Your task to perform on an android device: Show me popular games on the Play Store Image 0: 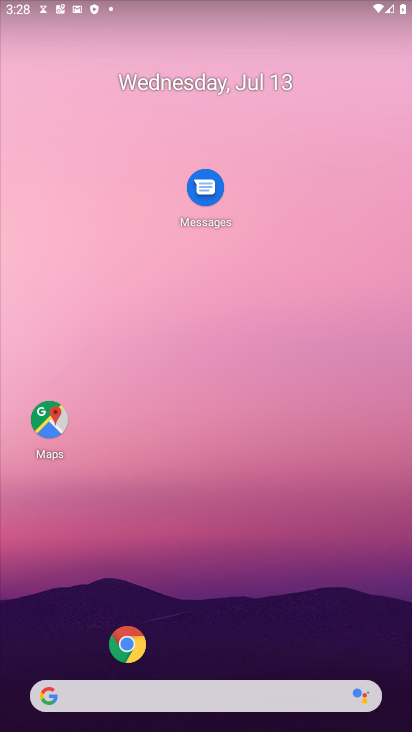
Step 0: drag from (22, 697) to (113, 336)
Your task to perform on an android device: Show me popular games on the Play Store Image 1: 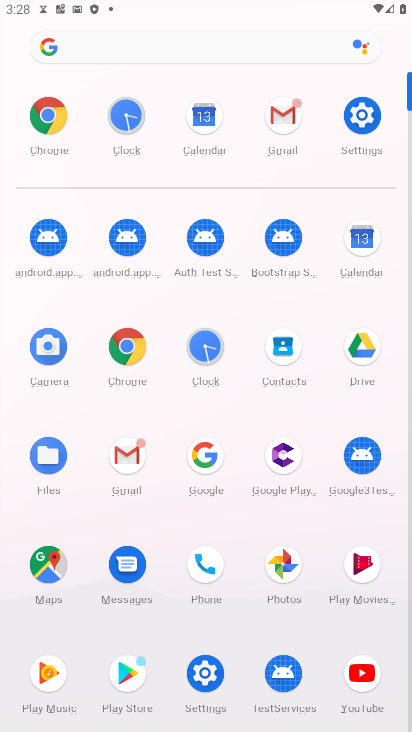
Step 1: click (130, 666)
Your task to perform on an android device: Show me popular games on the Play Store Image 2: 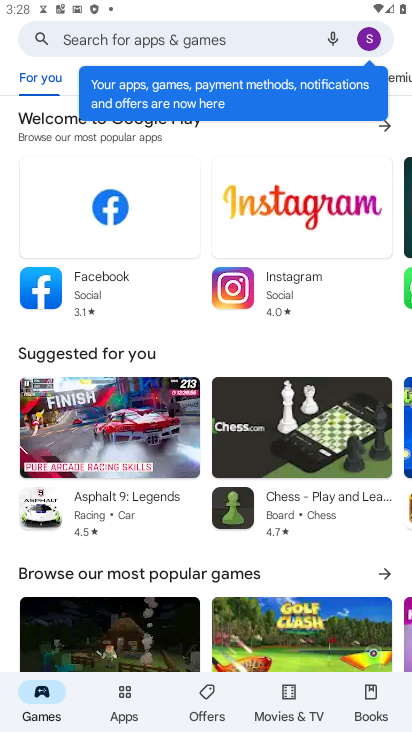
Step 2: click (82, 43)
Your task to perform on an android device: Show me popular games on the Play Store Image 3: 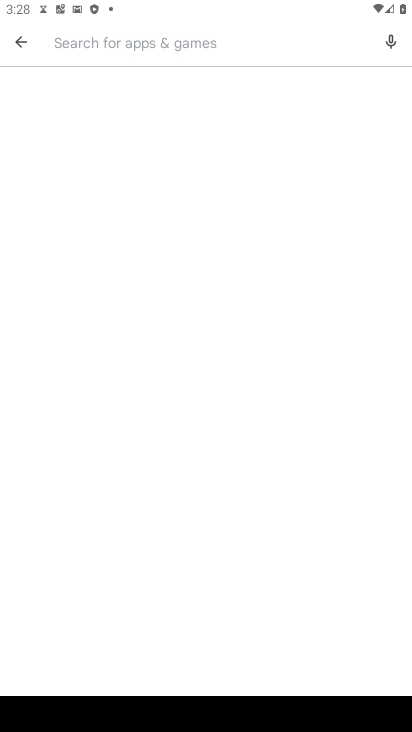
Step 3: type " popular games"
Your task to perform on an android device: Show me popular games on the Play Store Image 4: 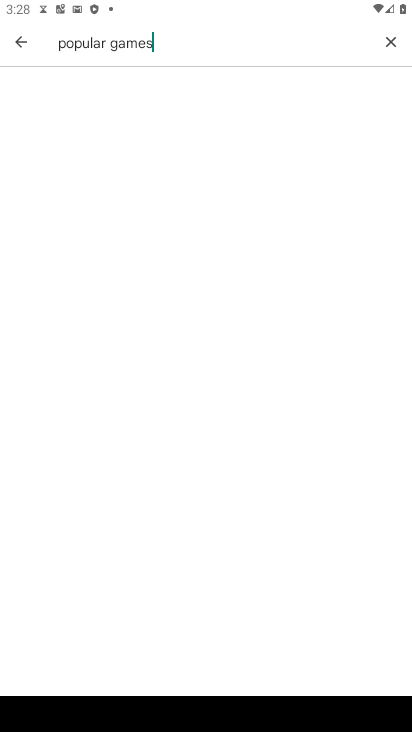
Step 4: type ""
Your task to perform on an android device: Show me popular games on the Play Store Image 5: 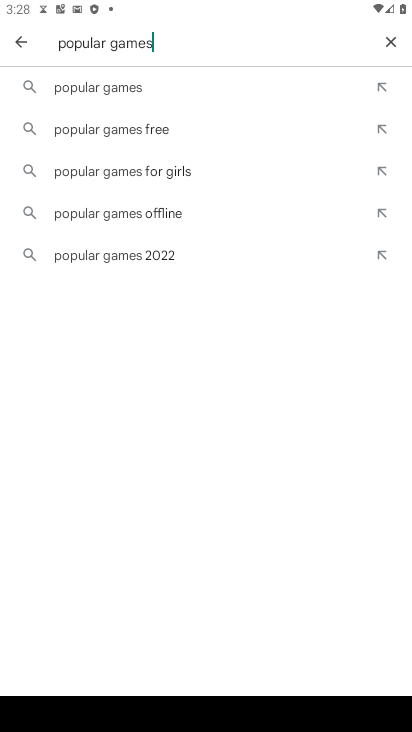
Step 5: click (113, 77)
Your task to perform on an android device: Show me popular games on the Play Store Image 6: 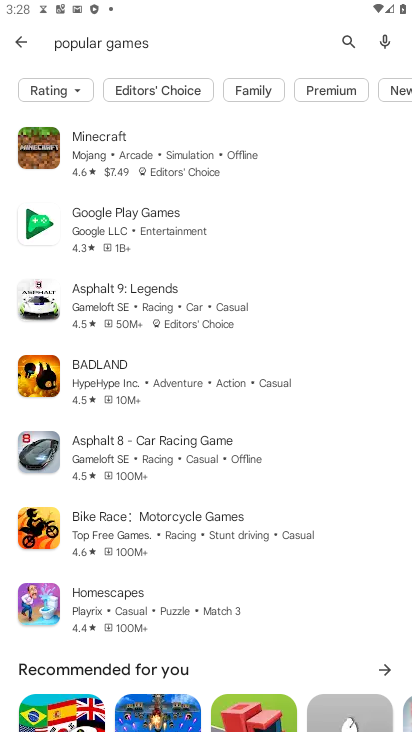
Step 6: task complete